Your task to perform on an android device: Open settings Image 0: 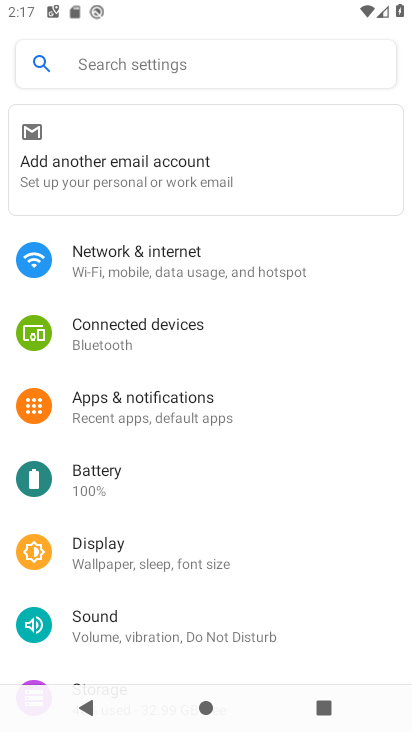
Step 0: drag from (264, 484) to (278, 270)
Your task to perform on an android device: Open settings Image 1: 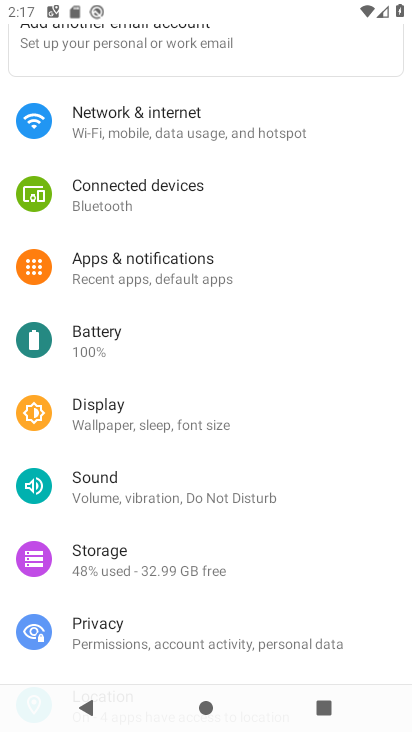
Step 1: task complete